Your task to perform on an android device: empty trash in the gmail app Image 0: 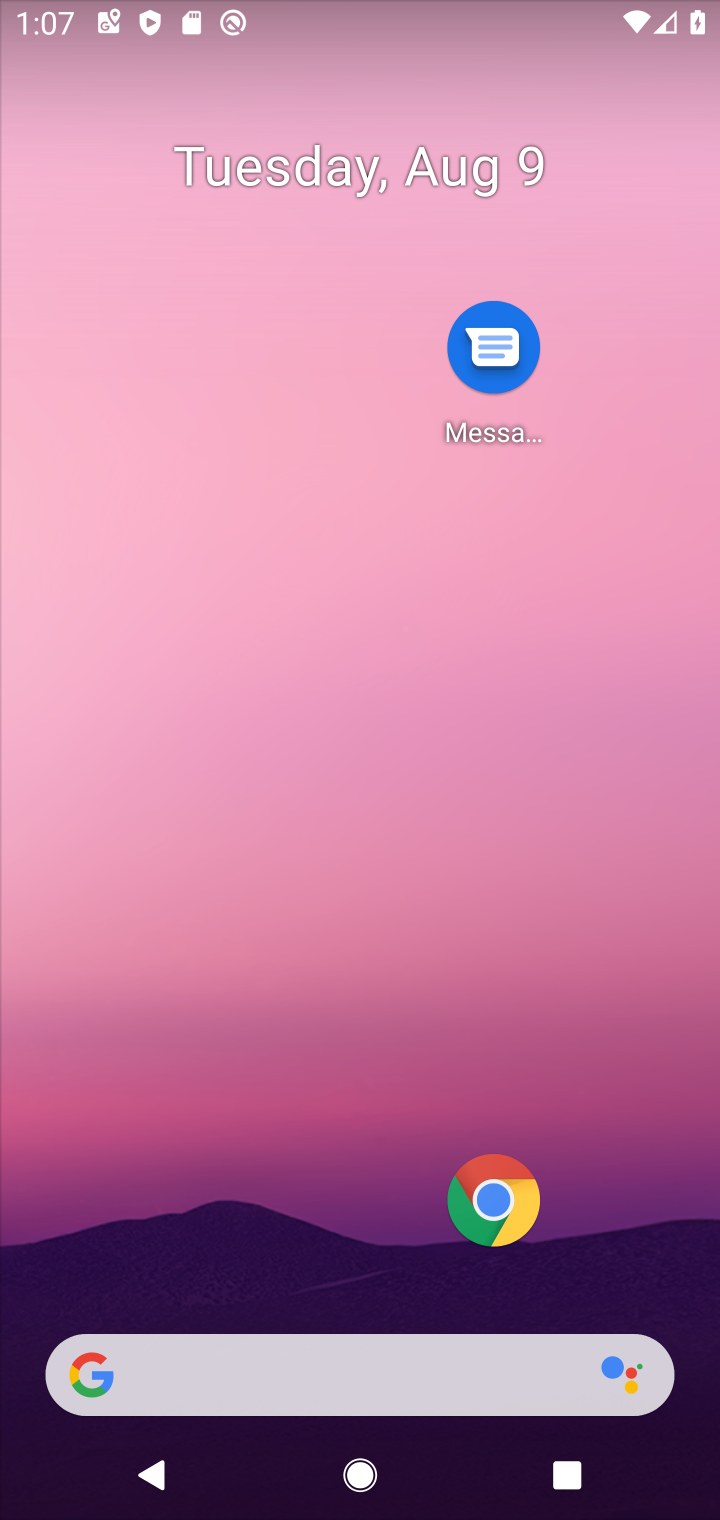
Step 0: drag from (367, 1278) to (468, 0)
Your task to perform on an android device: empty trash in the gmail app Image 1: 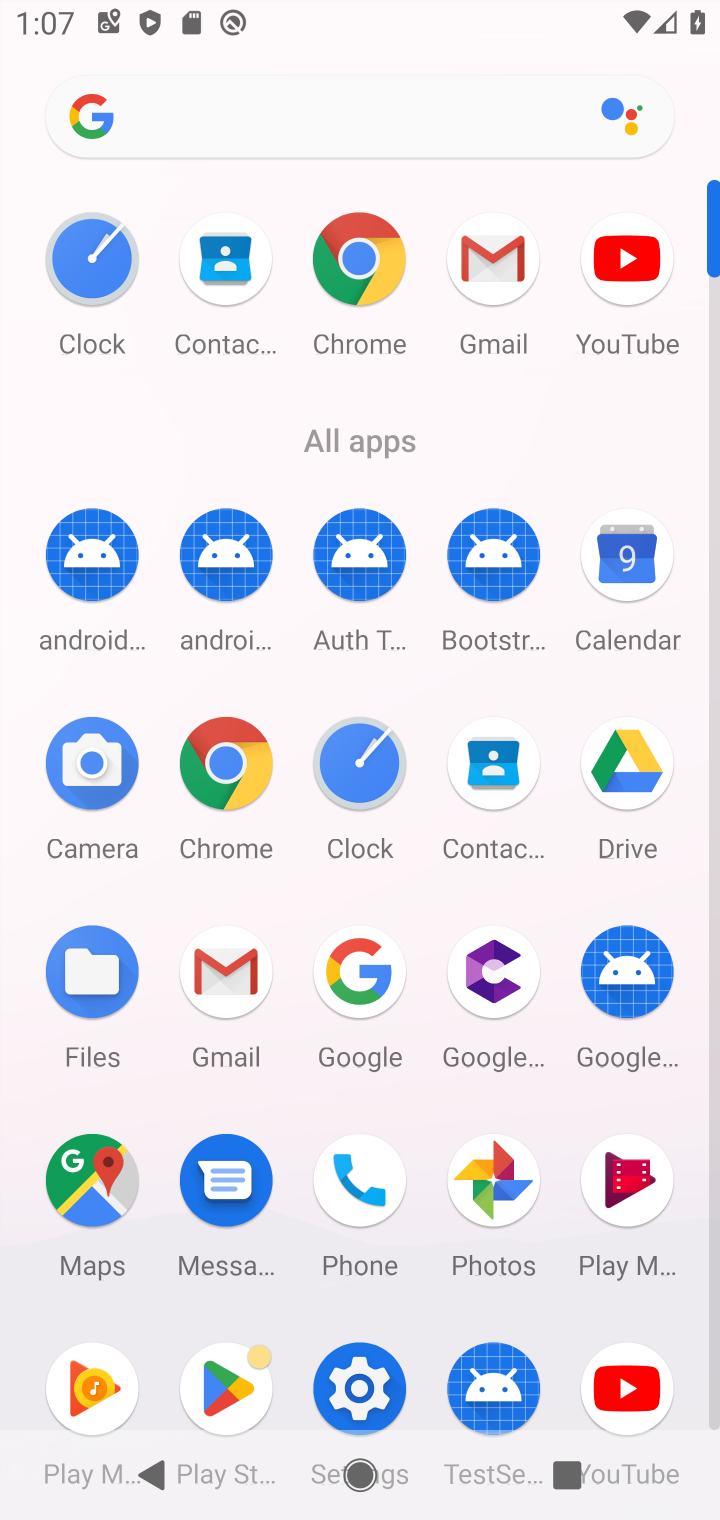
Step 1: click (230, 971)
Your task to perform on an android device: empty trash in the gmail app Image 2: 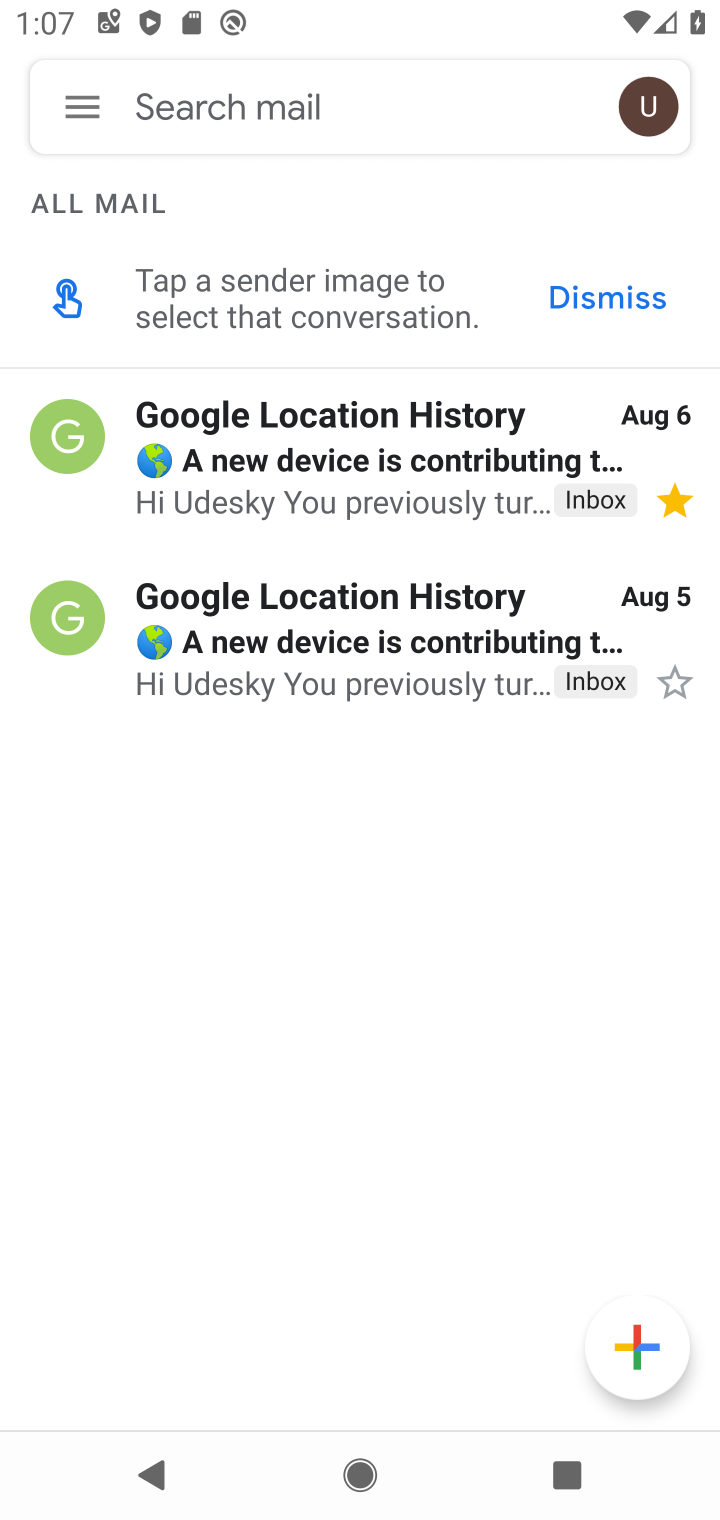
Step 2: click (94, 103)
Your task to perform on an android device: empty trash in the gmail app Image 3: 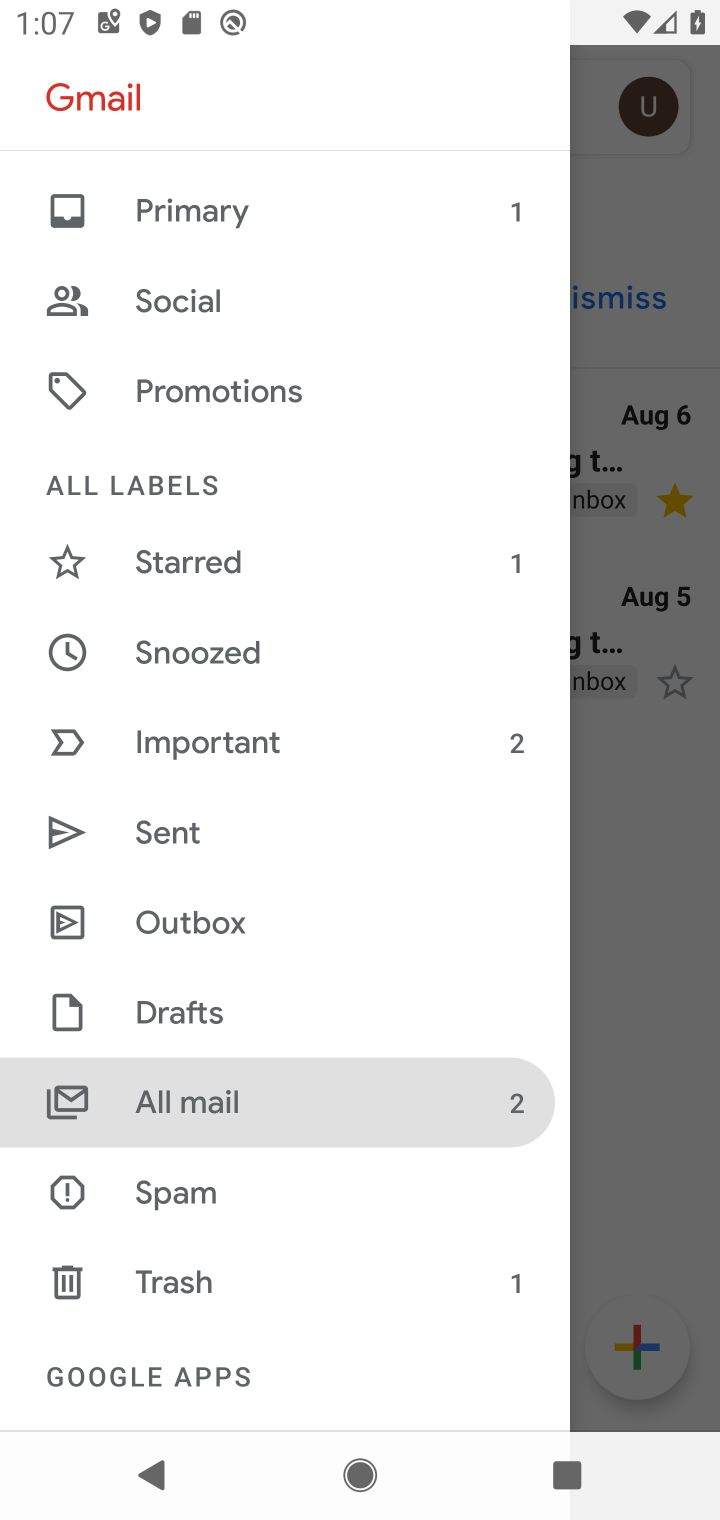
Step 3: click (134, 1289)
Your task to perform on an android device: empty trash in the gmail app Image 4: 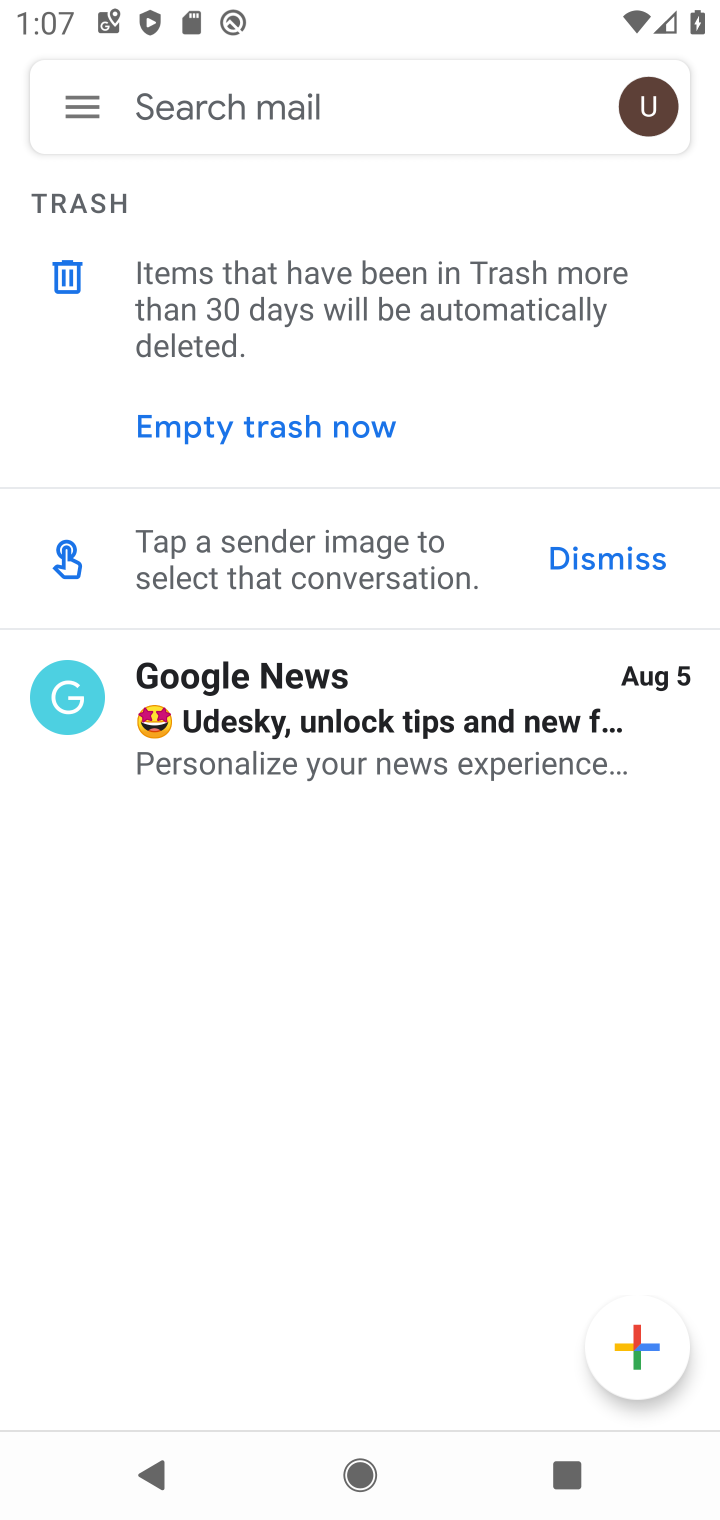
Step 4: click (249, 411)
Your task to perform on an android device: empty trash in the gmail app Image 5: 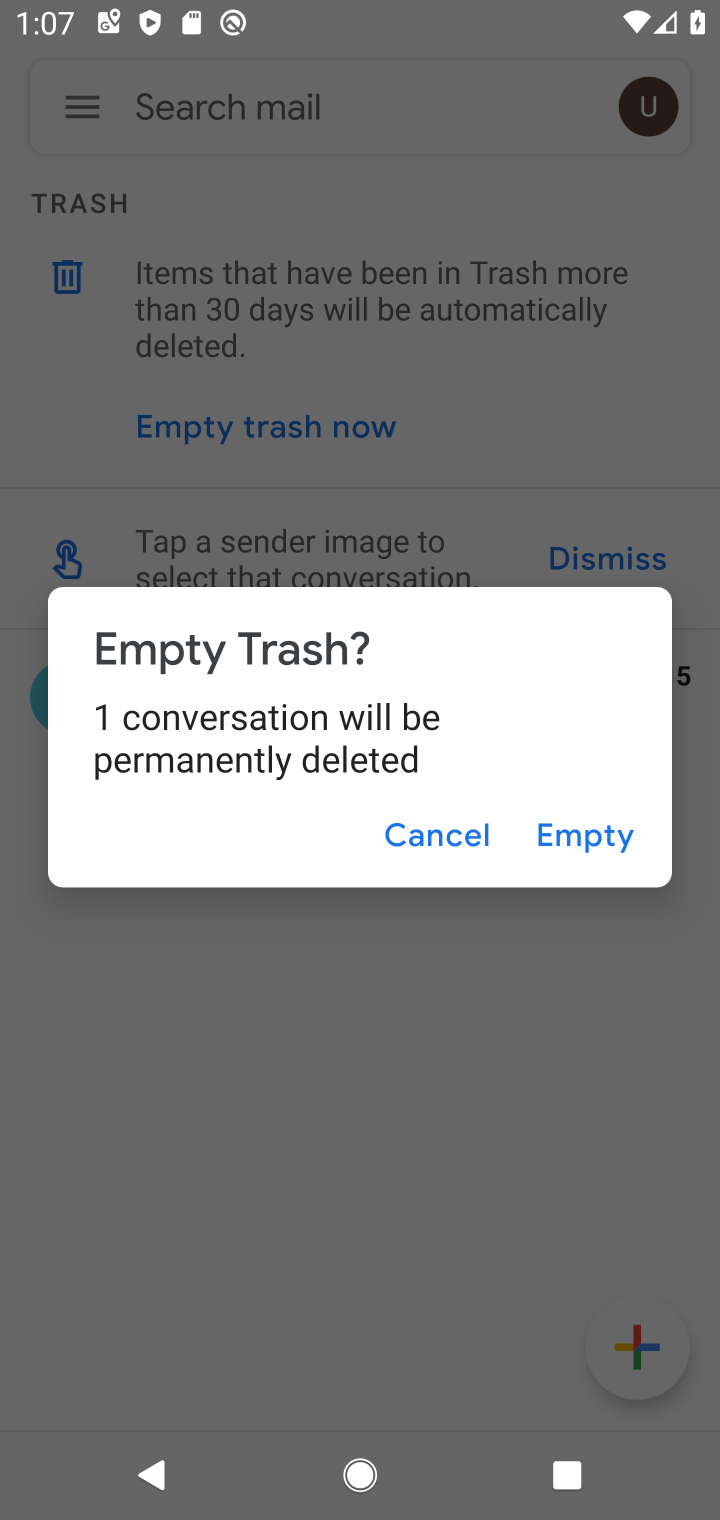
Step 5: click (551, 827)
Your task to perform on an android device: empty trash in the gmail app Image 6: 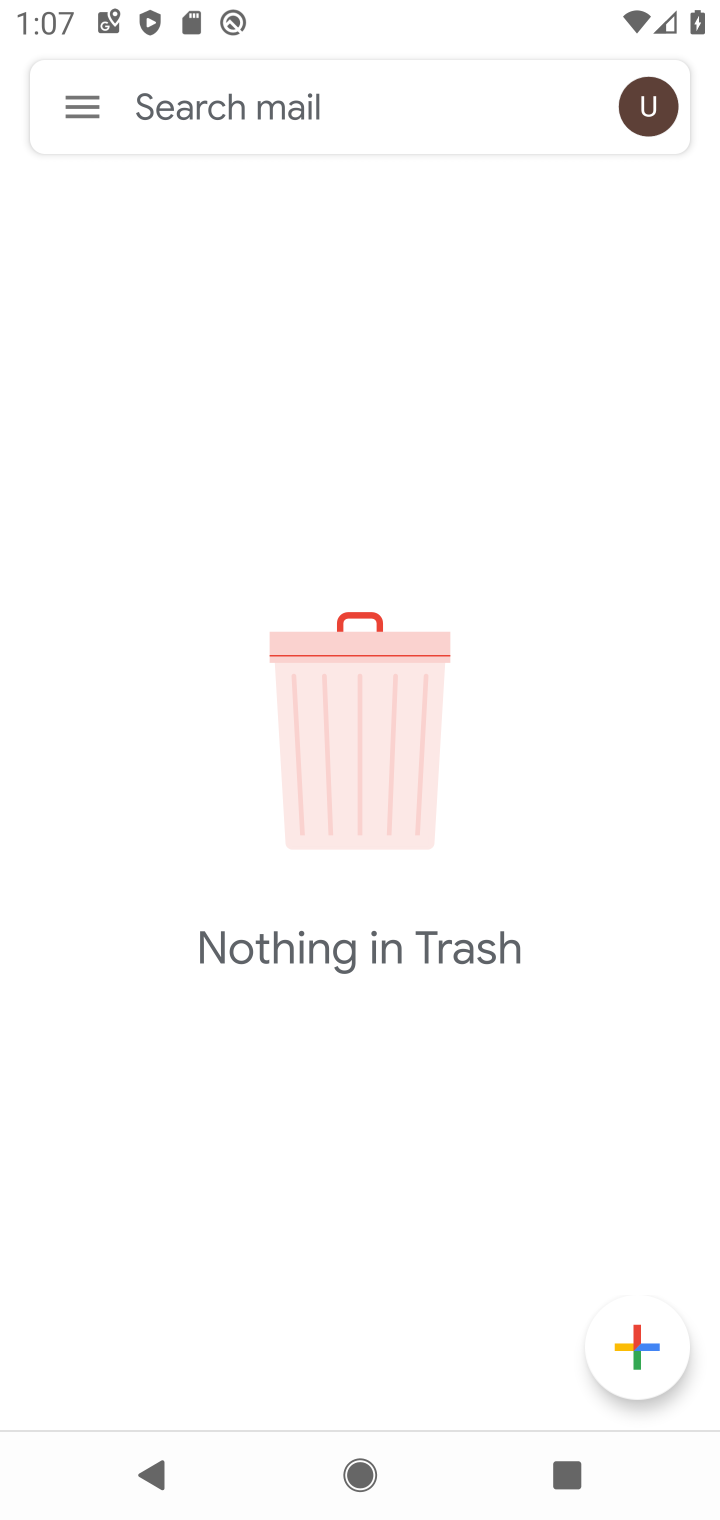
Step 6: task complete